Your task to perform on an android device: turn off location Image 0: 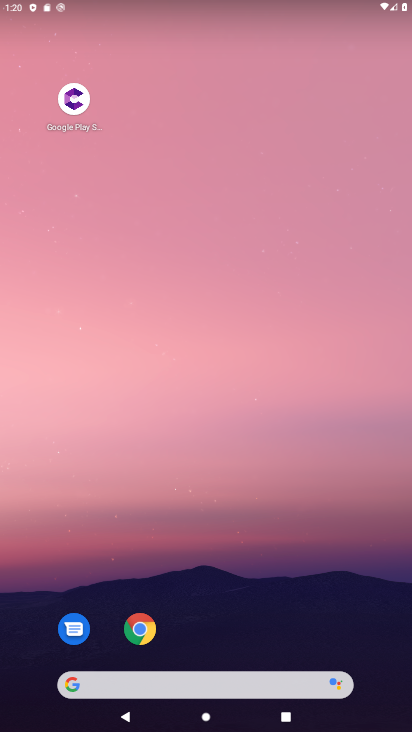
Step 0: drag from (245, 621) to (237, 48)
Your task to perform on an android device: turn off location Image 1: 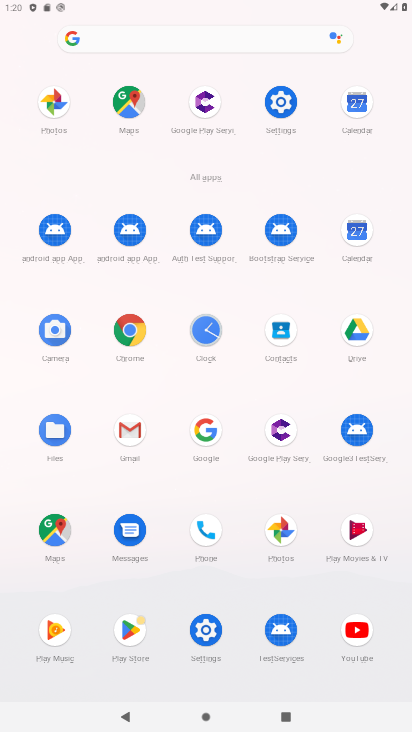
Step 1: click (282, 99)
Your task to perform on an android device: turn off location Image 2: 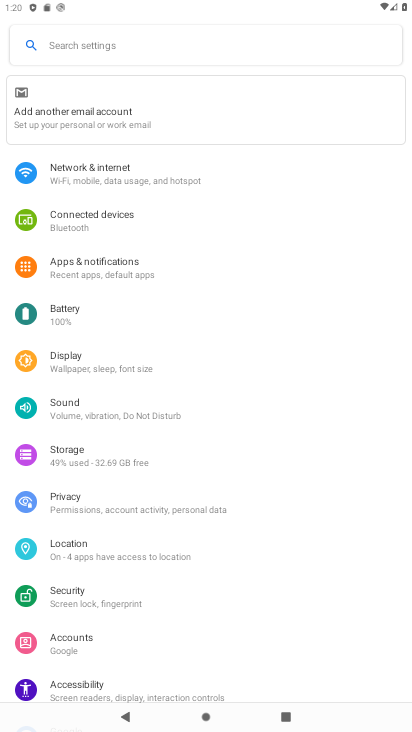
Step 2: click (101, 550)
Your task to perform on an android device: turn off location Image 3: 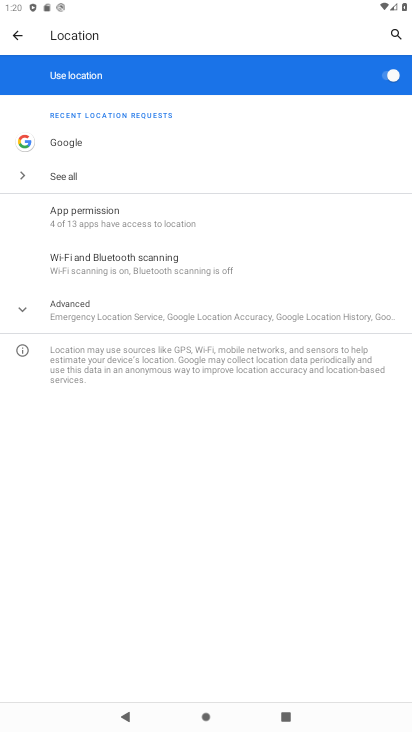
Step 3: click (390, 83)
Your task to perform on an android device: turn off location Image 4: 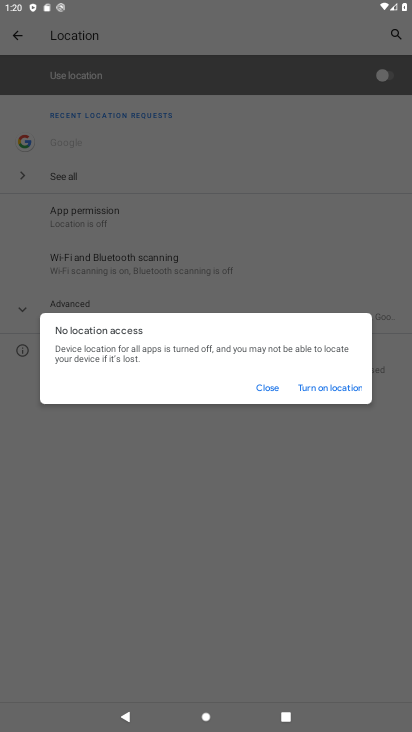
Step 4: task complete